Your task to perform on an android device: Show me popular videos on Youtube Image 0: 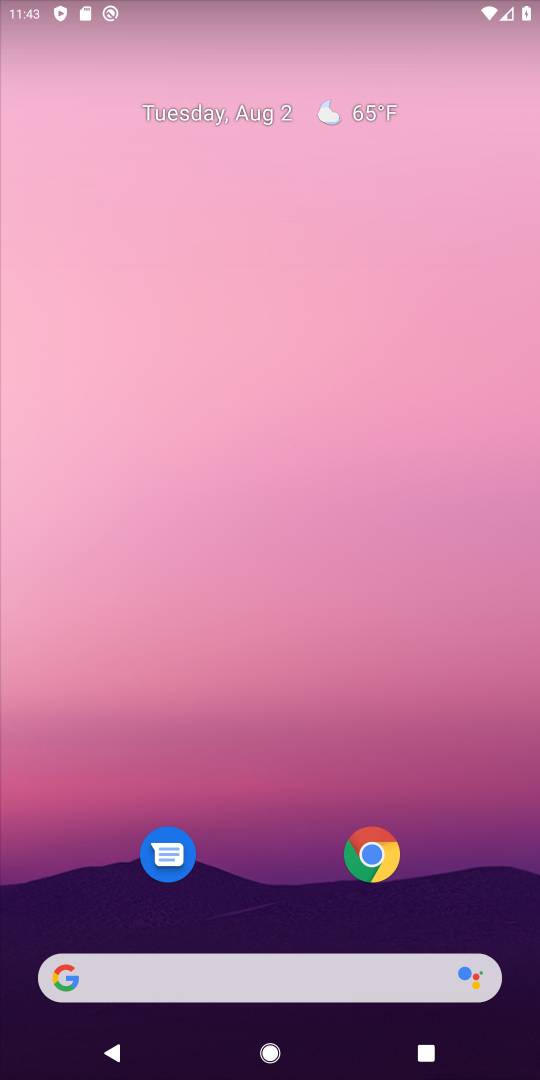
Step 0: drag from (431, 901) to (436, 182)
Your task to perform on an android device: Show me popular videos on Youtube Image 1: 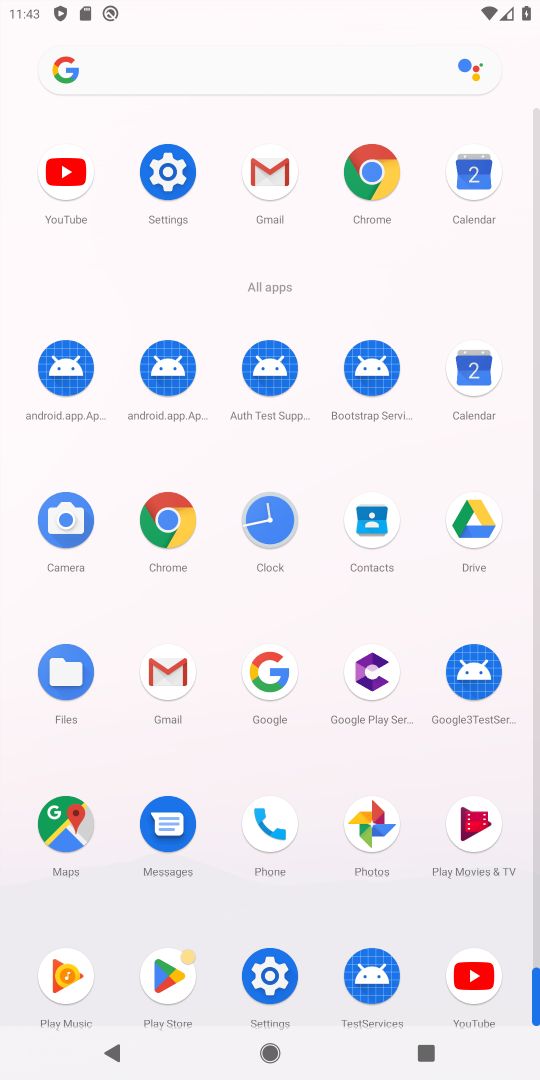
Step 1: click (56, 169)
Your task to perform on an android device: Show me popular videos on Youtube Image 2: 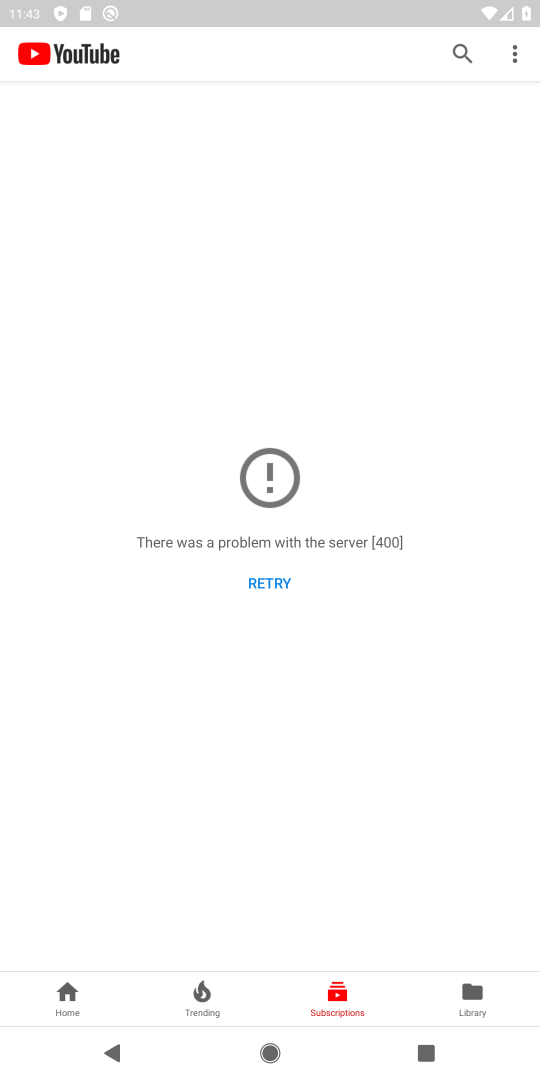
Step 2: click (467, 1002)
Your task to perform on an android device: Show me popular videos on Youtube Image 3: 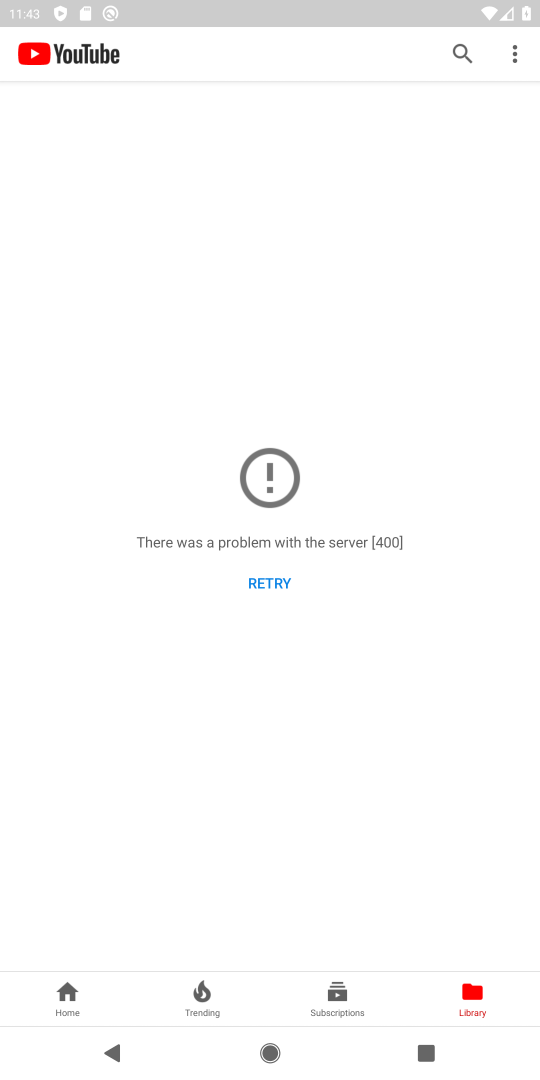
Step 3: click (196, 994)
Your task to perform on an android device: Show me popular videos on Youtube Image 4: 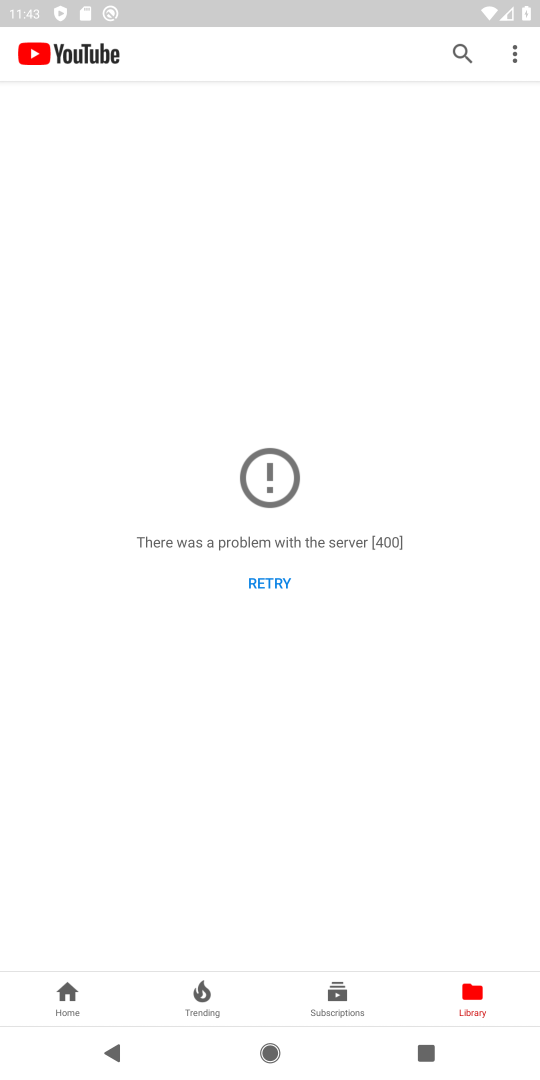
Step 4: click (200, 1001)
Your task to perform on an android device: Show me popular videos on Youtube Image 5: 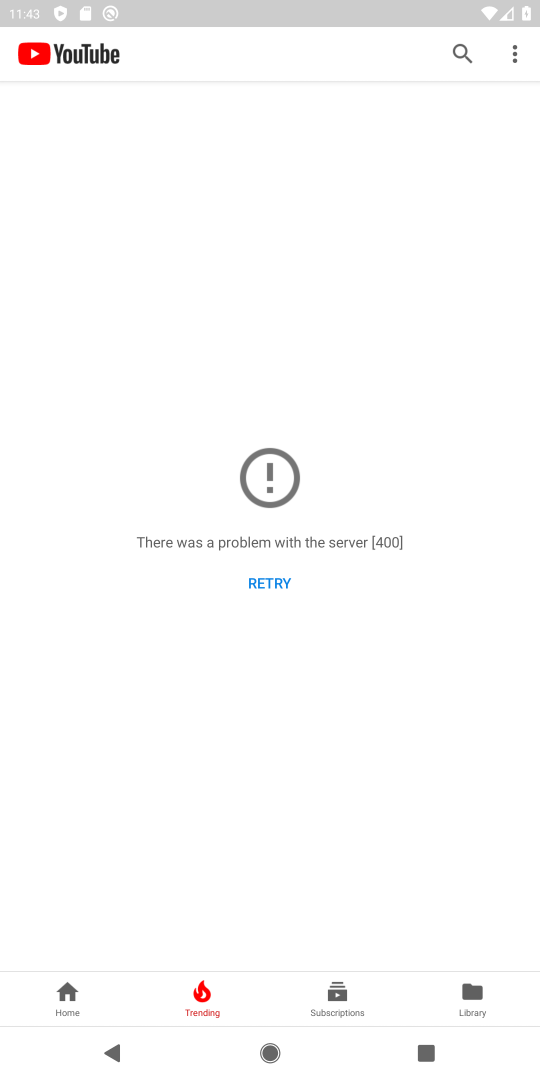
Step 5: task complete